Your task to perform on an android device: Go to notification settings Image 0: 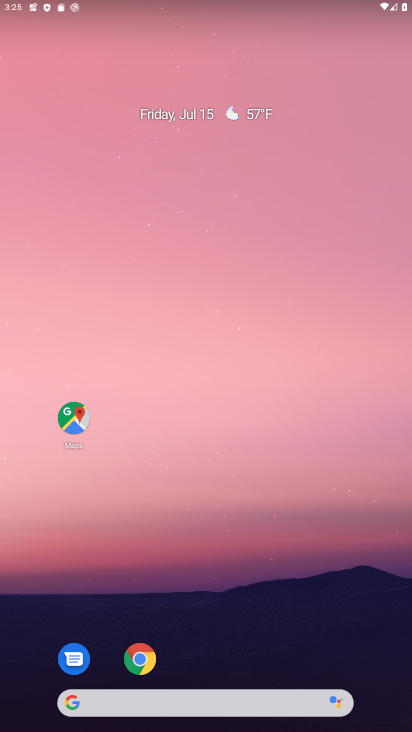
Step 0: click (139, 662)
Your task to perform on an android device: Go to notification settings Image 1: 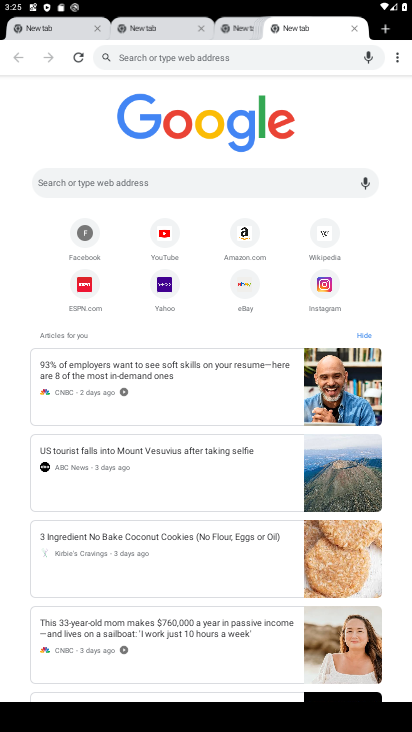
Step 1: click (393, 54)
Your task to perform on an android device: Go to notification settings Image 2: 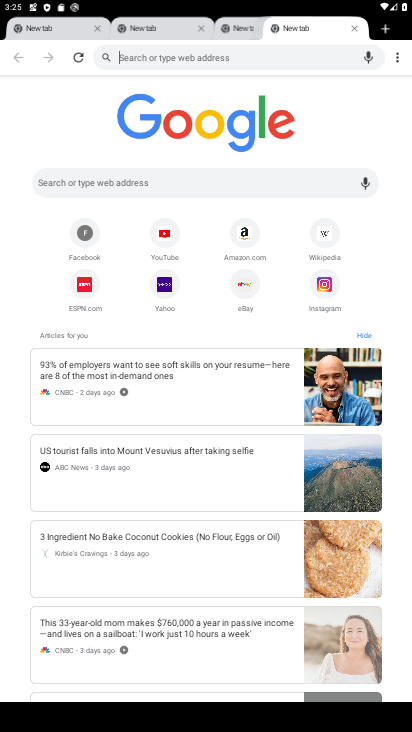
Step 2: click (399, 55)
Your task to perform on an android device: Go to notification settings Image 3: 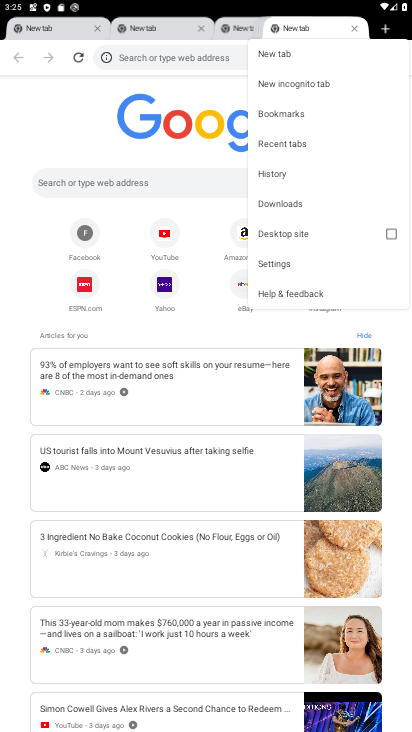
Step 3: task complete